Your task to perform on an android device: Search for vegetarian restaurants on Maps Image 0: 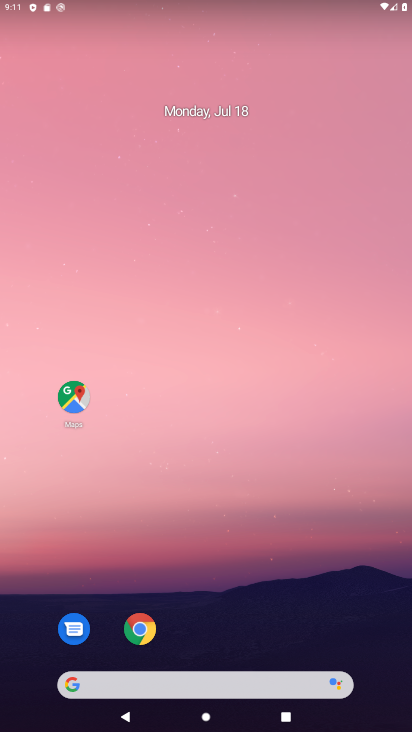
Step 0: drag from (281, 562) to (226, 146)
Your task to perform on an android device: Search for vegetarian restaurants on Maps Image 1: 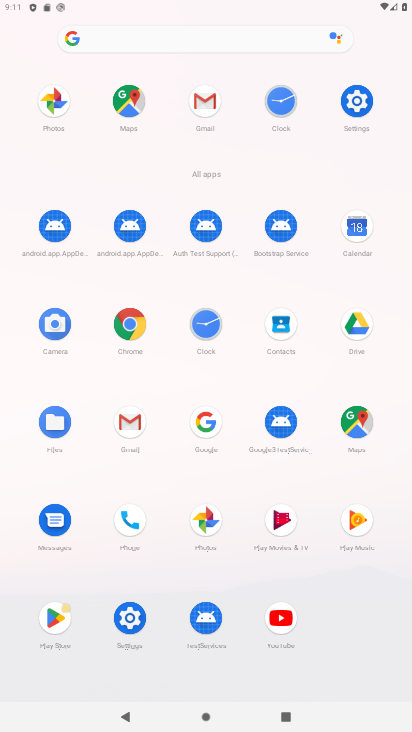
Step 1: click (140, 127)
Your task to perform on an android device: Search for vegetarian restaurants on Maps Image 2: 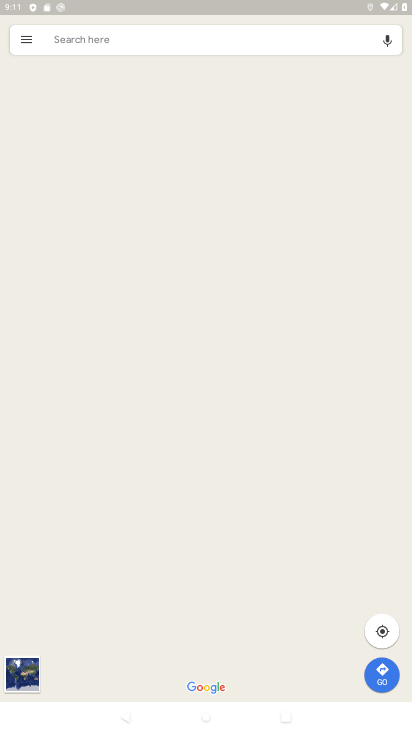
Step 2: click (255, 44)
Your task to perform on an android device: Search for vegetarian restaurants on Maps Image 3: 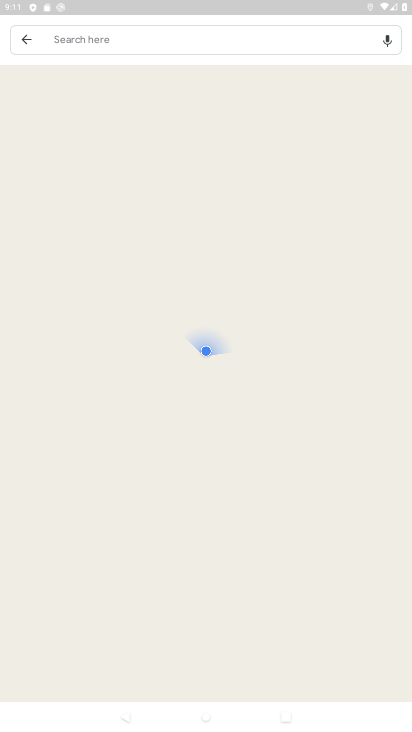
Step 3: click (217, 37)
Your task to perform on an android device: Search for vegetarian restaurants on Maps Image 4: 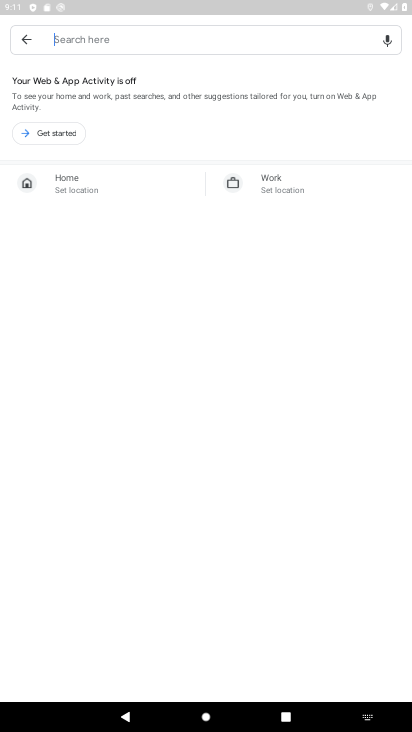
Step 4: type "vegetarian restaurants"
Your task to perform on an android device: Search for vegetarian restaurants on Maps Image 5: 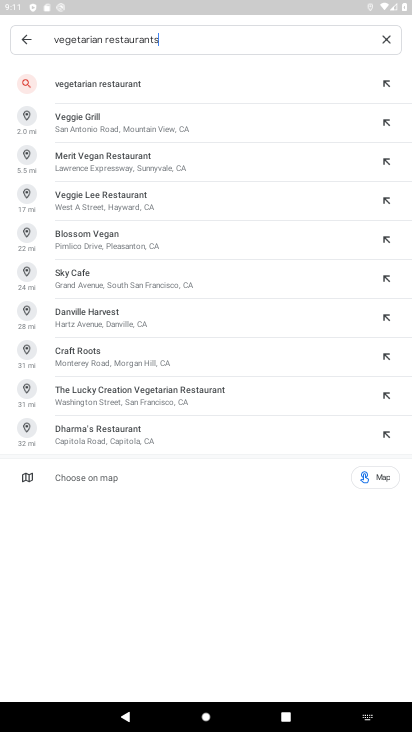
Step 5: press enter
Your task to perform on an android device: Search for vegetarian restaurants on Maps Image 6: 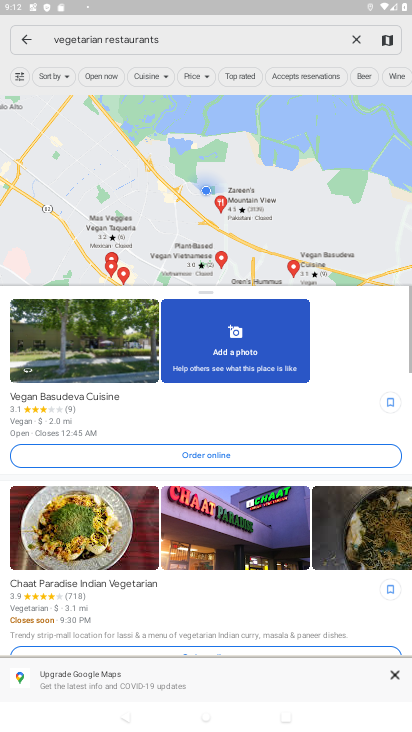
Step 6: task complete